Your task to perform on an android device: manage bookmarks in the chrome app Image 0: 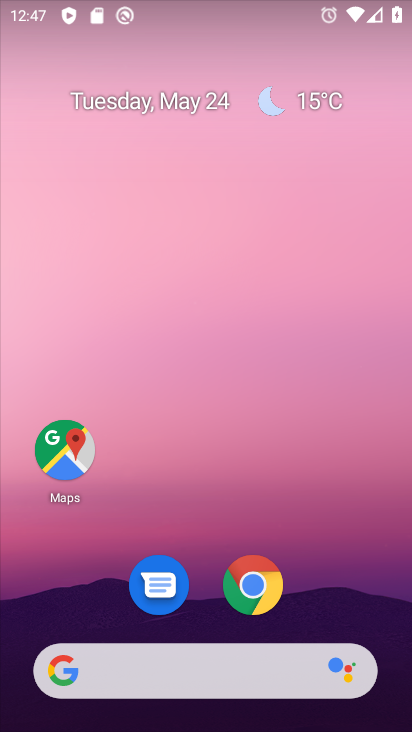
Step 0: click (268, 582)
Your task to perform on an android device: manage bookmarks in the chrome app Image 1: 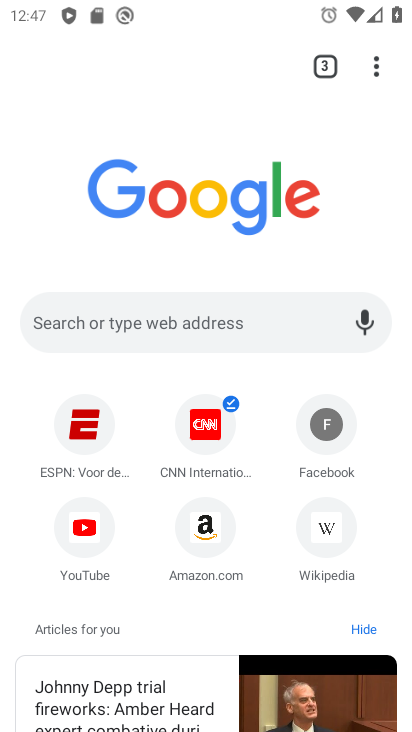
Step 1: click (374, 66)
Your task to perform on an android device: manage bookmarks in the chrome app Image 2: 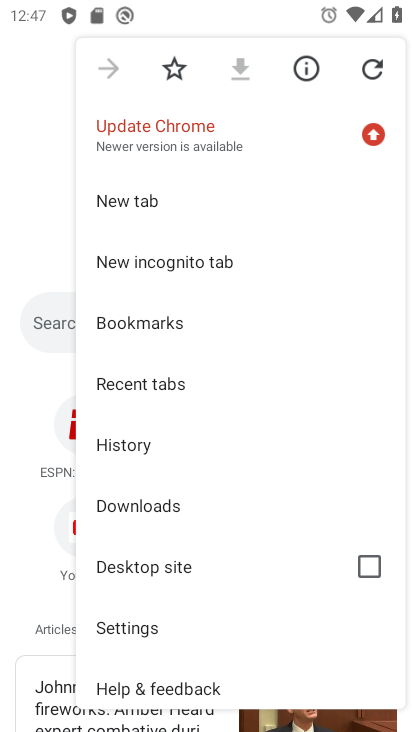
Step 2: click (174, 320)
Your task to perform on an android device: manage bookmarks in the chrome app Image 3: 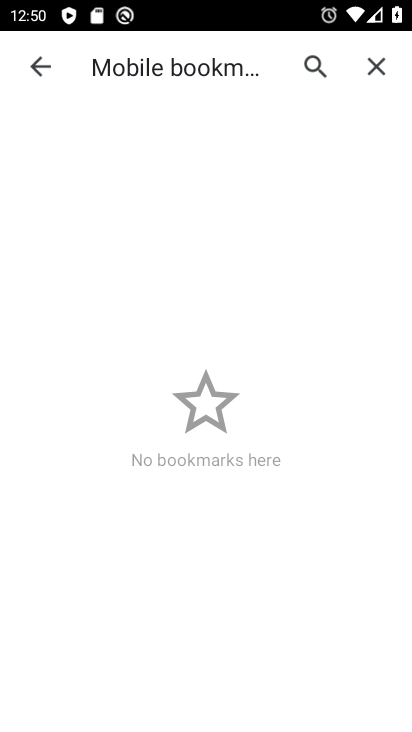
Step 3: task complete